Your task to perform on an android device: What's the weather like in Paris? Image 0: 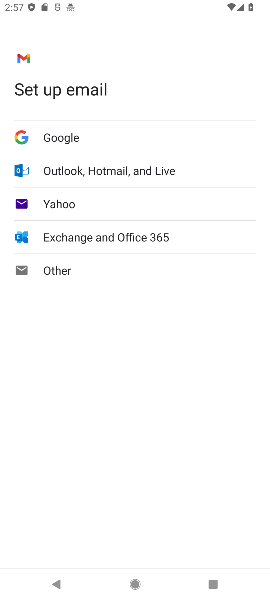
Step 0: press home button
Your task to perform on an android device: What's the weather like in Paris? Image 1: 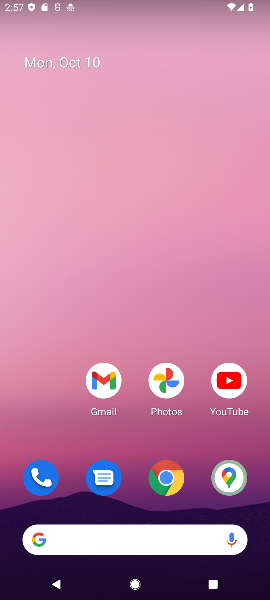
Step 1: click (183, 480)
Your task to perform on an android device: What's the weather like in Paris? Image 2: 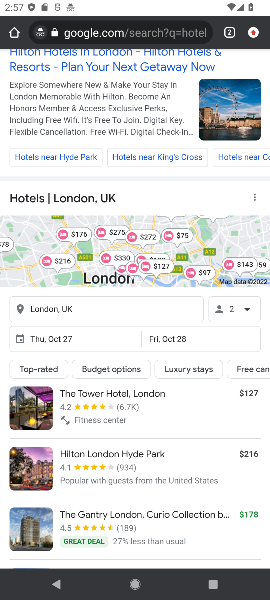
Step 2: click (132, 23)
Your task to perform on an android device: What's the weather like in Paris? Image 3: 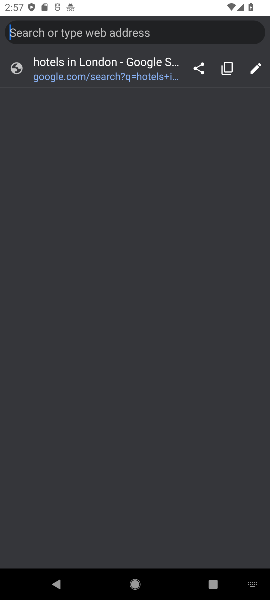
Step 3: type " weather like in Paris?"
Your task to perform on an android device: What's the weather like in Paris? Image 4: 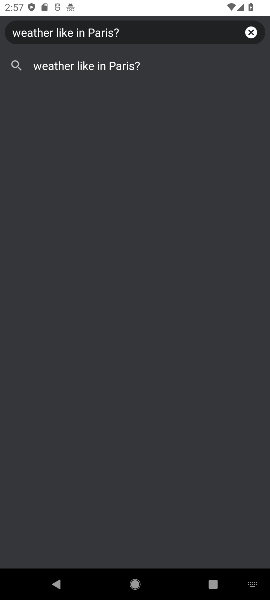
Step 4: click (86, 71)
Your task to perform on an android device: What's the weather like in Paris? Image 5: 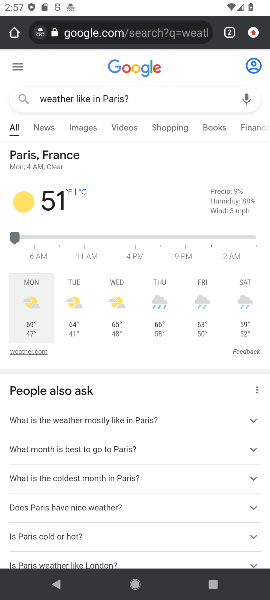
Step 5: task complete